Your task to perform on an android device: When is my next meeting? Image 0: 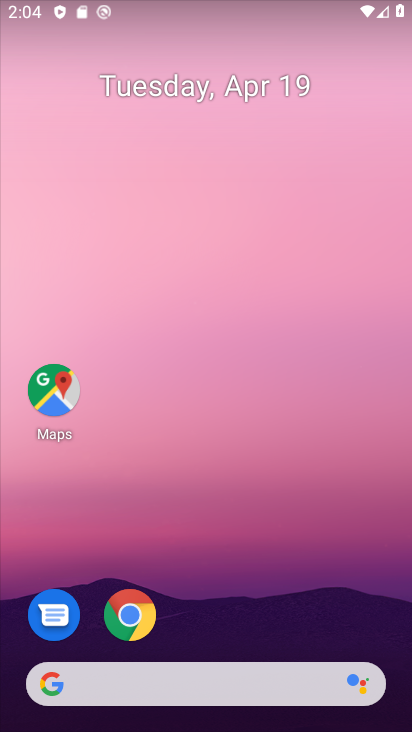
Step 0: drag from (195, 557) to (309, 39)
Your task to perform on an android device: When is my next meeting? Image 1: 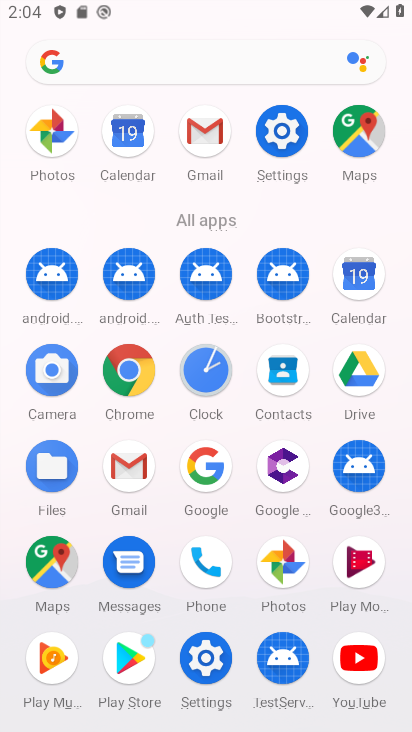
Step 1: click (356, 283)
Your task to perform on an android device: When is my next meeting? Image 2: 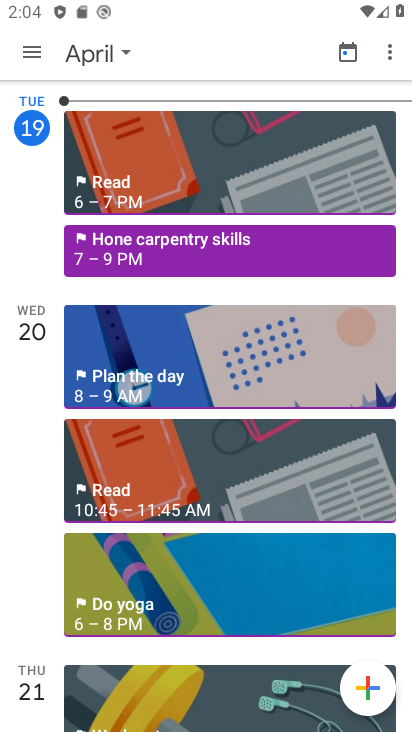
Step 2: task complete